Your task to perform on an android device: turn pop-ups off in chrome Image 0: 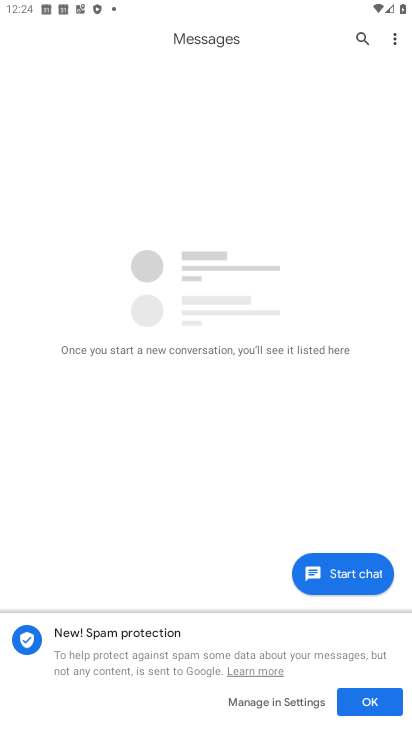
Step 0: press home button
Your task to perform on an android device: turn pop-ups off in chrome Image 1: 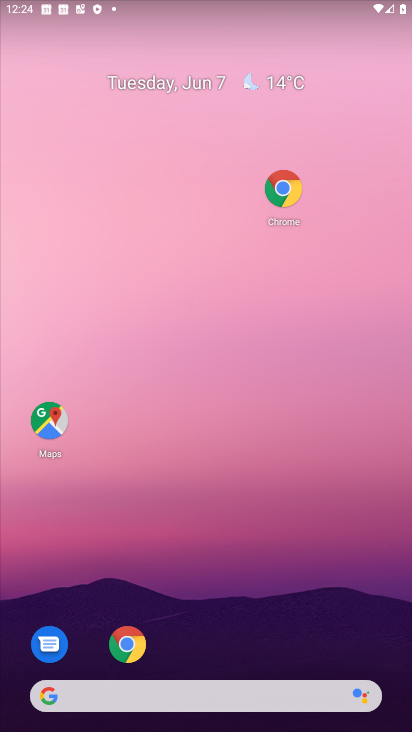
Step 1: click (287, 189)
Your task to perform on an android device: turn pop-ups off in chrome Image 2: 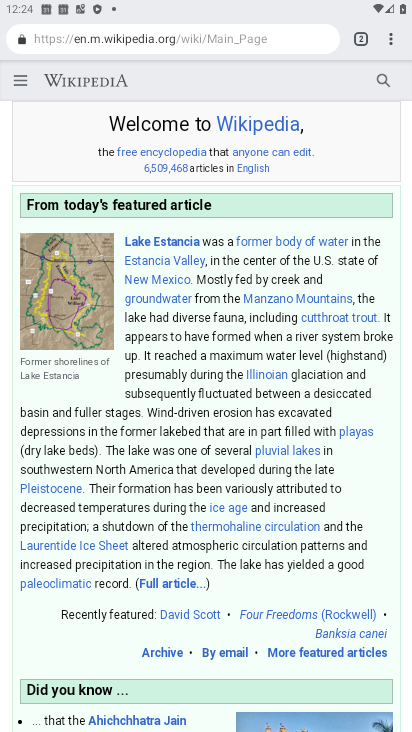
Step 2: click (393, 30)
Your task to perform on an android device: turn pop-ups off in chrome Image 3: 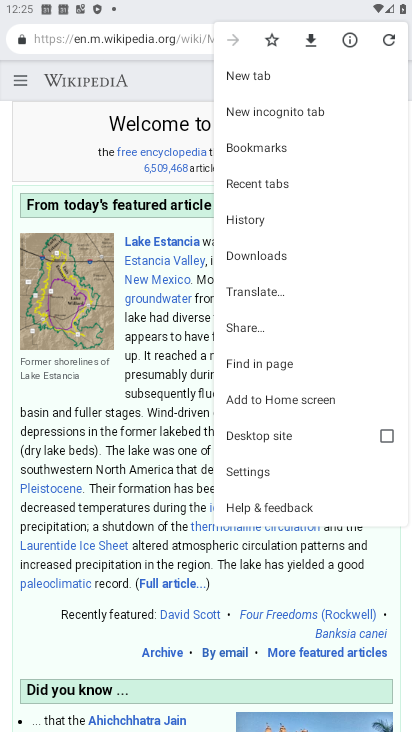
Step 3: click (246, 481)
Your task to perform on an android device: turn pop-ups off in chrome Image 4: 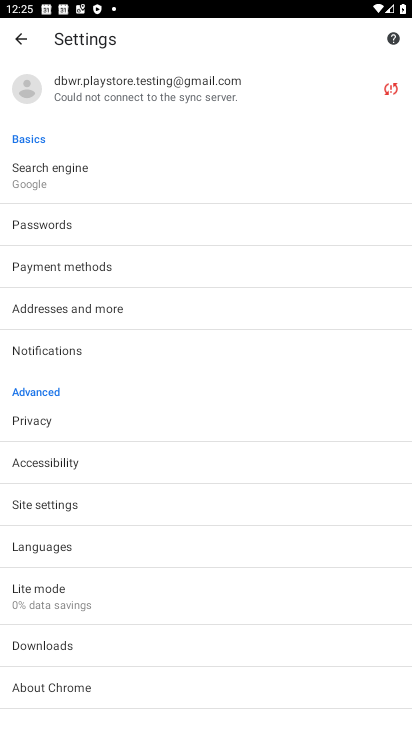
Step 4: click (56, 503)
Your task to perform on an android device: turn pop-ups off in chrome Image 5: 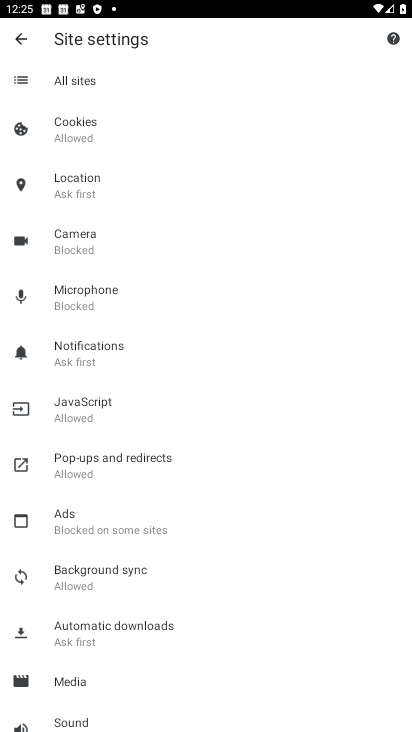
Step 5: click (85, 462)
Your task to perform on an android device: turn pop-ups off in chrome Image 6: 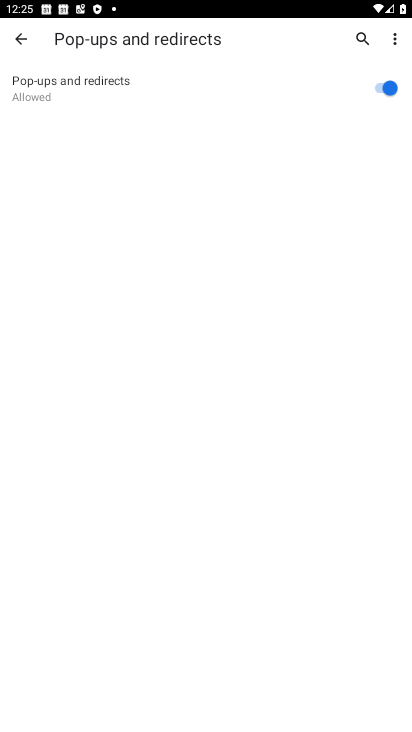
Step 6: click (388, 88)
Your task to perform on an android device: turn pop-ups off in chrome Image 7: 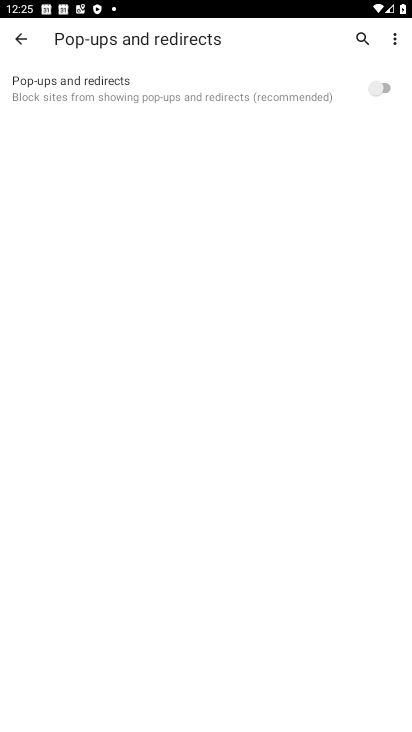
Step 7: task complete